Your task to perform on an android device: turn on translation in the chrome app Image 0: 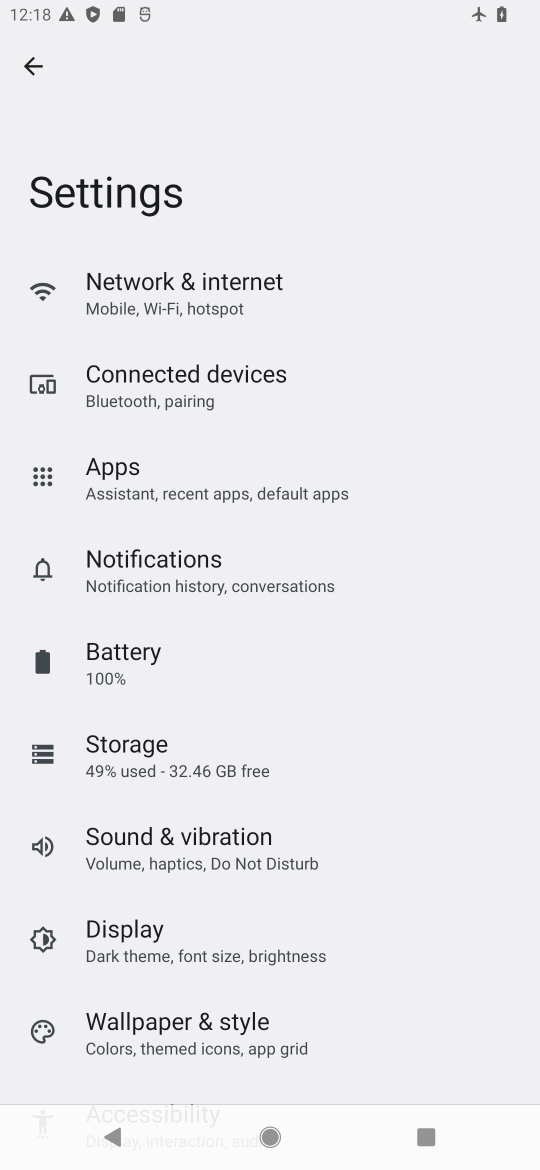
Step 0: press home button
Your task to perform on an android device: turn on translation in the chrome app Image 1: 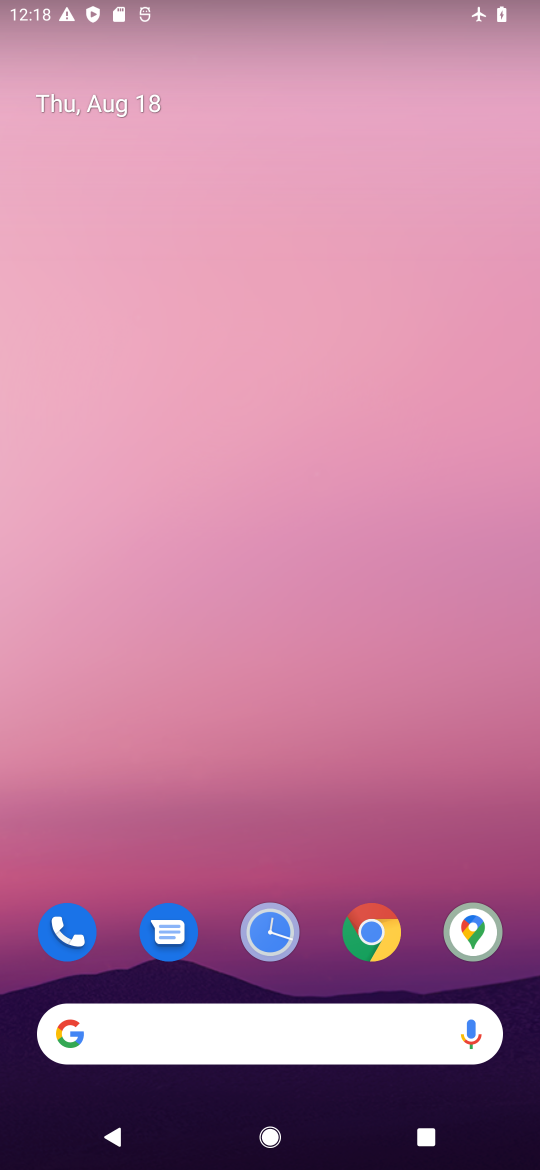
Step 1: click (370, 938)
Your task to perform on an android device: turn on translation in the chrome app Image 2: 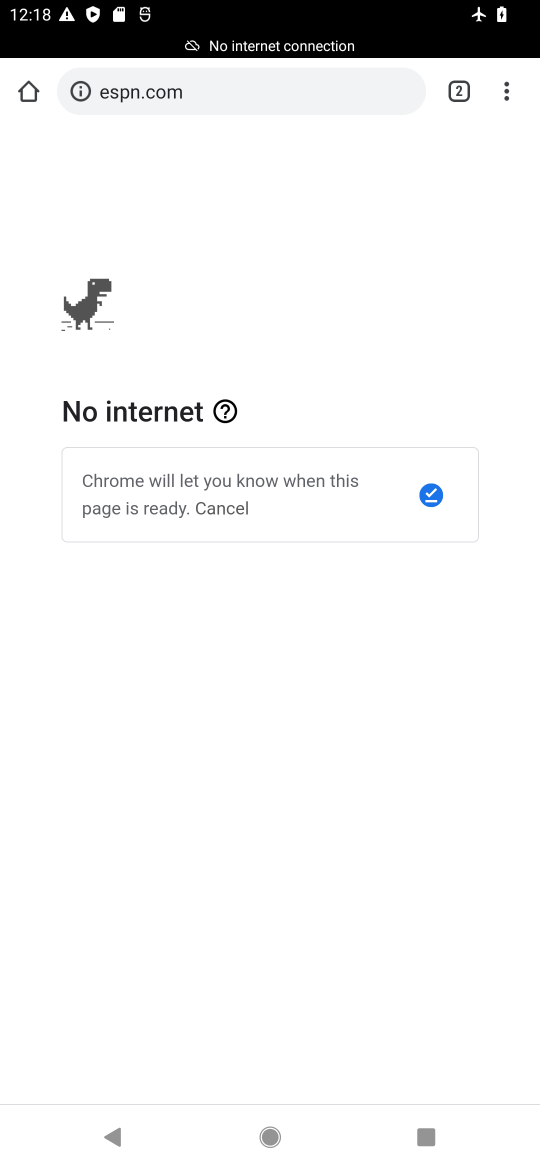
Step 2: click (507, 77)
Your task to perform on an android device: turn on translation in the chrome app Image 3: 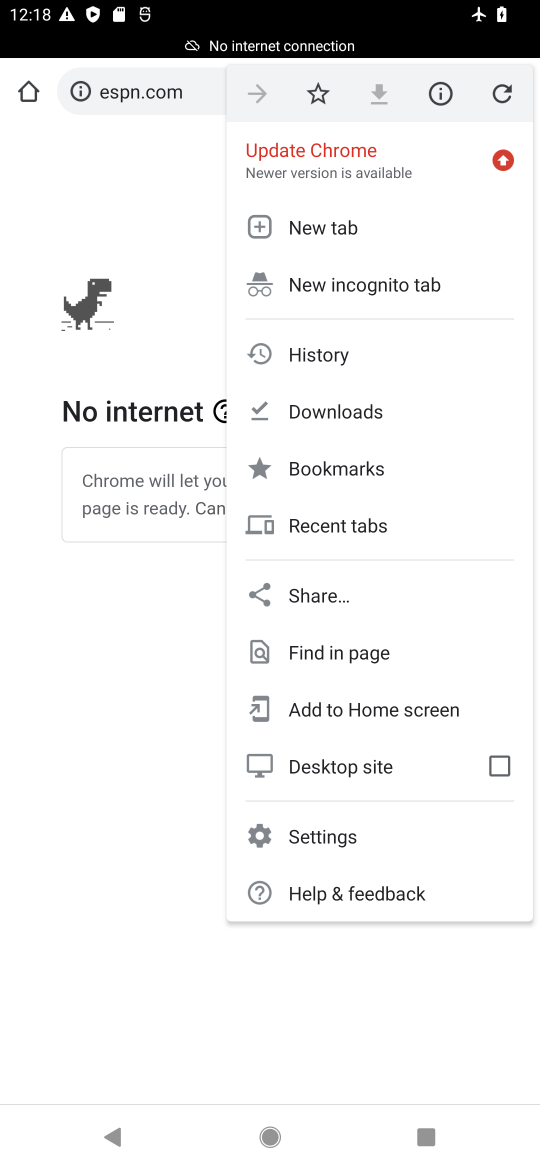
Step 3: click (343, 842)
Your task to perform on an android device: turn on translation in the chrome app Image 4: 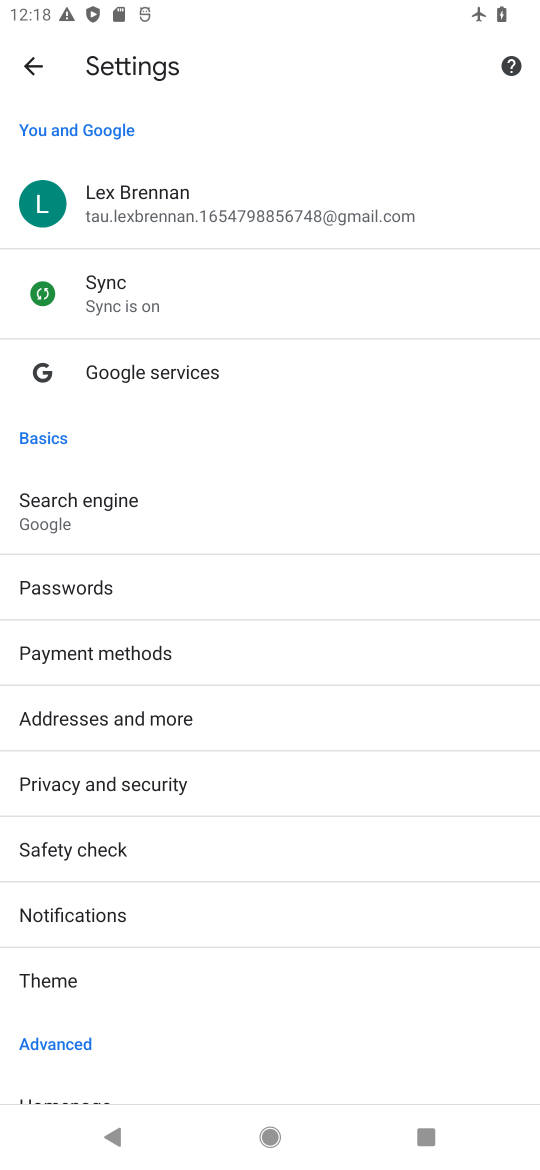
Step 4: drag from (234, 921) to (196, 606)
Your task to perform on an android device: turn on translation in the chrome app Image 5: 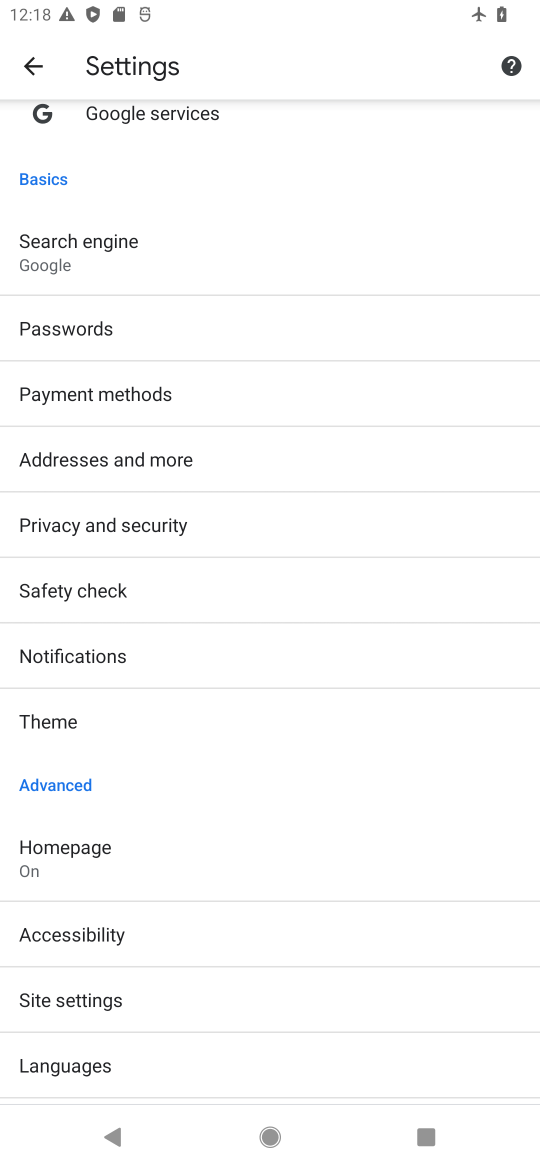
Step 5: click (81, 1060)
Your task to perform on an android device: turn on translation in the chrome app Image 6: 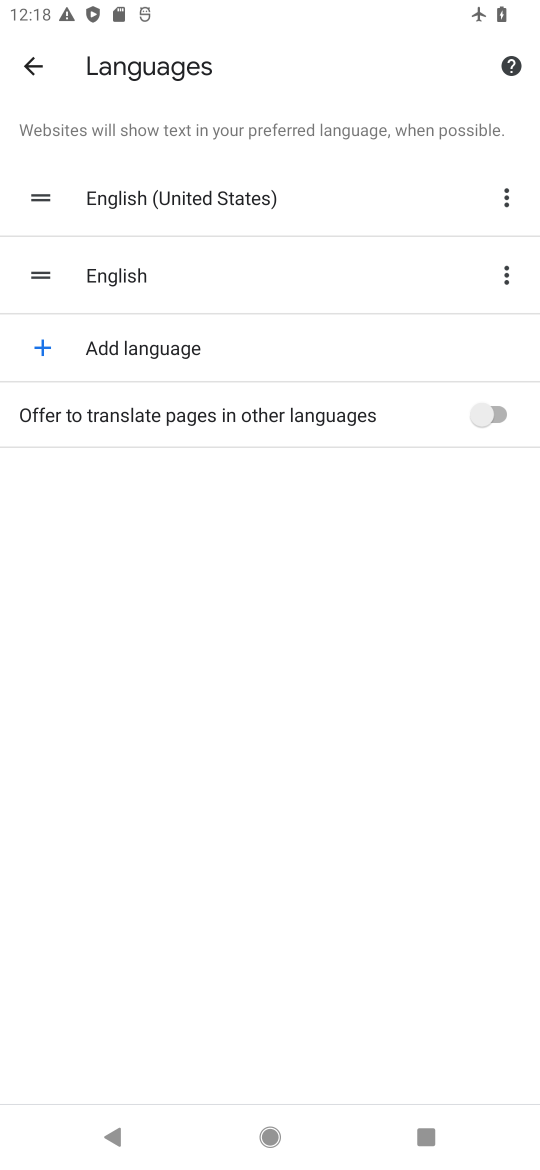
Step 6: click (483, 419)
Your task to perform on an android device: turn on translation in the chrome app Image 7: 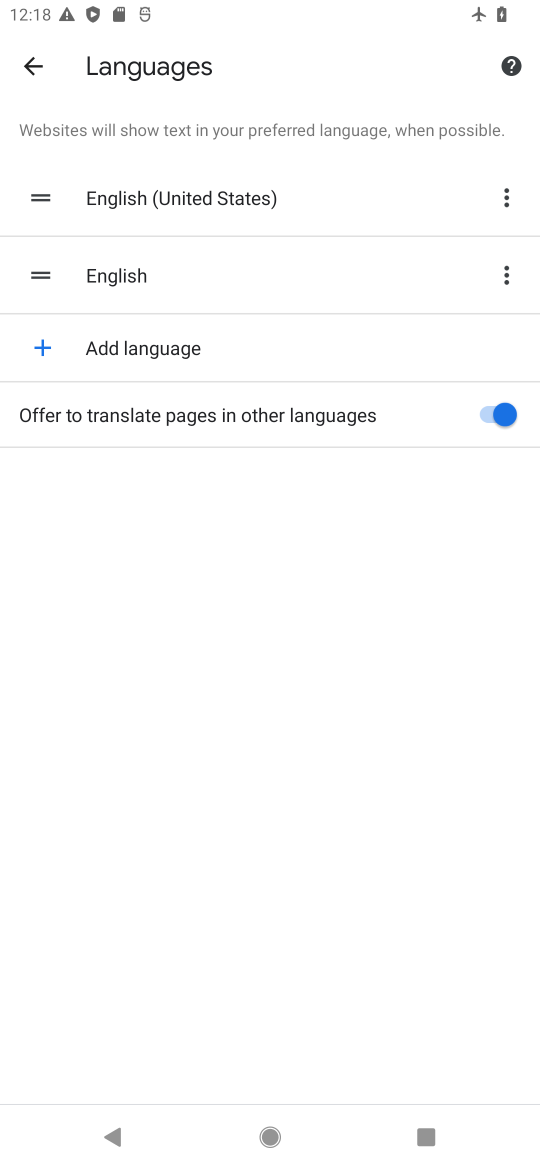
Step 7: task complete